Your task to perform on an android device: turn off javascript in the chrome app Image 0: 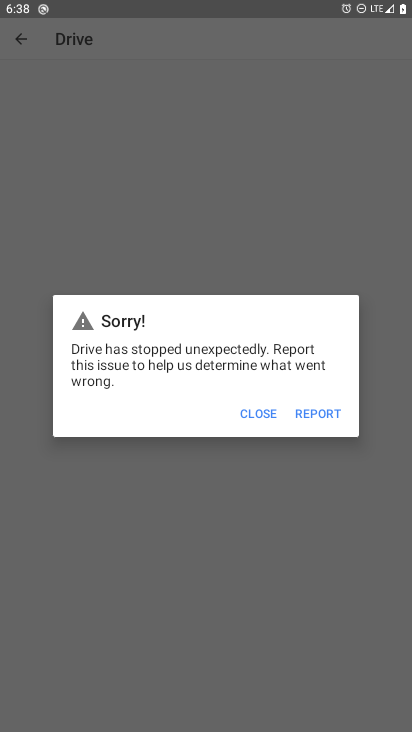
Step 0: press home button
Your task to perform on an android device: turn off javascript in the chrome app Image 1: 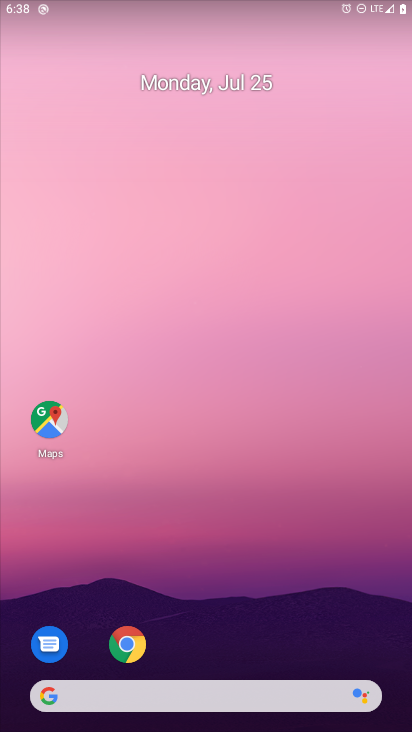
Step 1: drag from (250, 534) to (225, 77)
Your task to perform on an android device: turn off javascript in the chrome app Image 2: 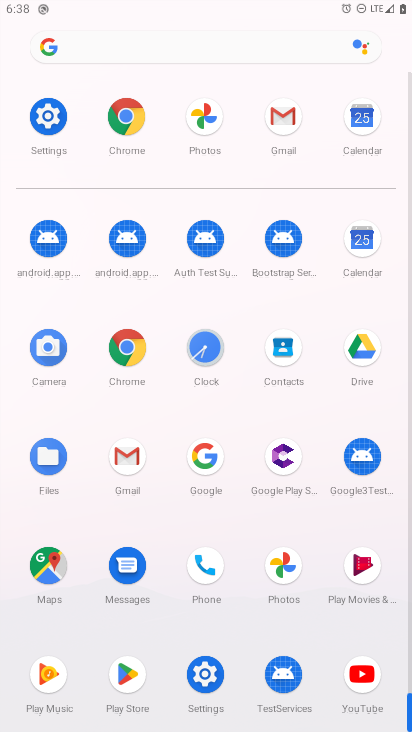
Step 2: click (120, 120)
Your task to perform on an android device: turn off javascript in the chrome app Image 3: 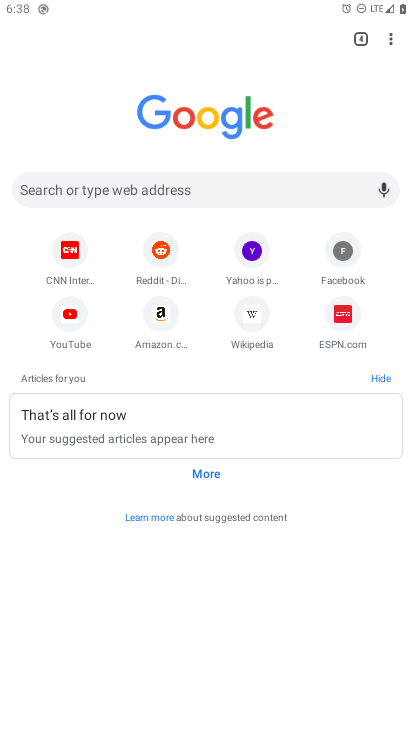
Step 3: drag from (388, 44) to (261, 328)
Your task to perform on an android device: turn off javascript in the chrome app Image 4: 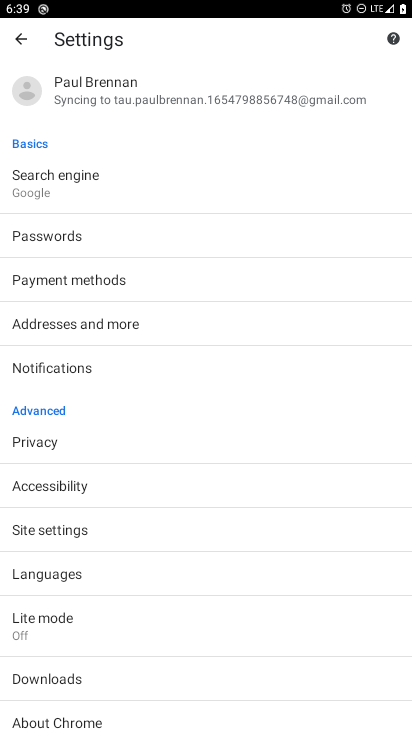
Step 4: click (52, 530)
Your task to perform on an android device: turn off javascript in the chrome app Image 5: 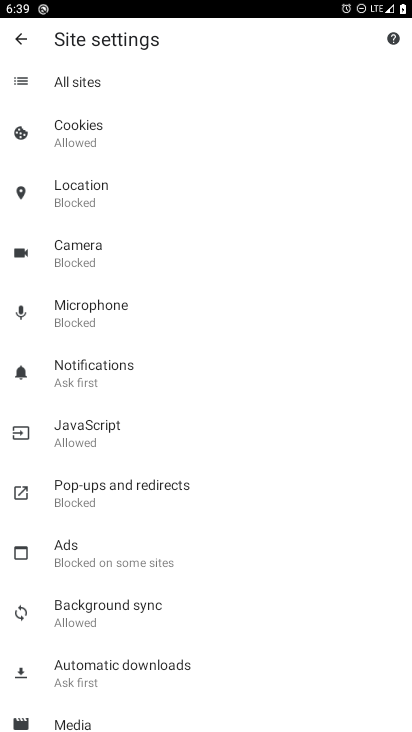
Step 5: click (90, 442)
Your task to perform on an android device: turn off javascript in the chrome app Image 6: 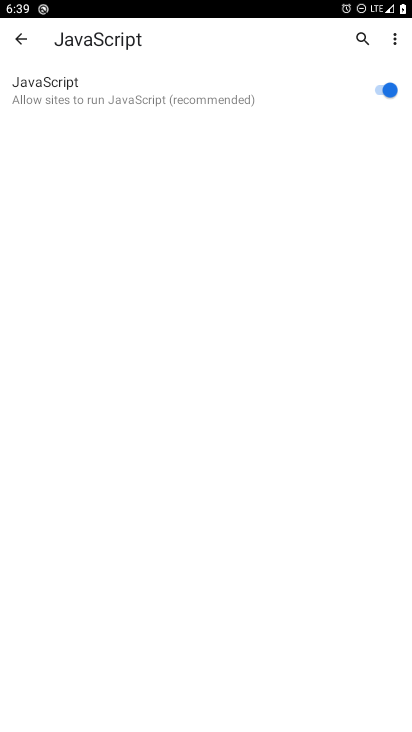
Step 6: click (397, 88)
Your task to perform on an android device: turn off javascript in the chrome app Image 7: 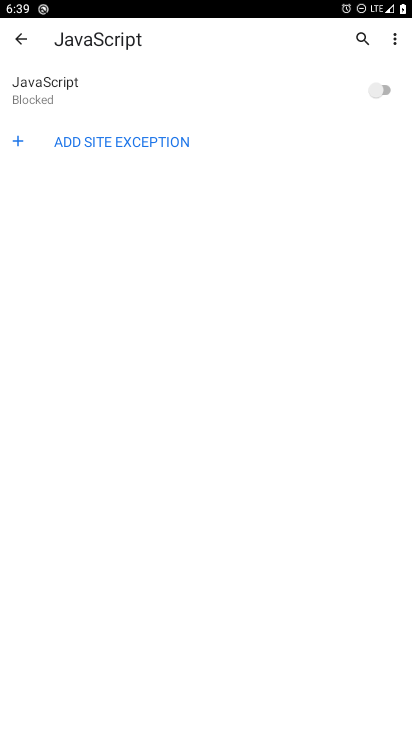
Step 7: task complete